Your task to perform on an android device: Do I have any events this weekend? Image 0: 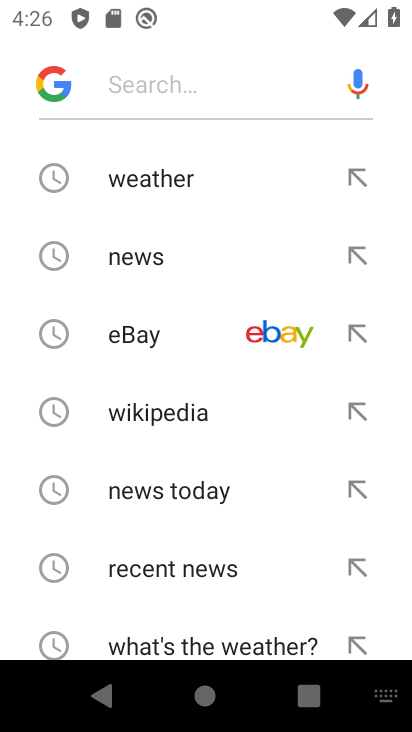
Step 0: press home button
Your task to perform on an android device: Do I have any events this weekend? Image 1: 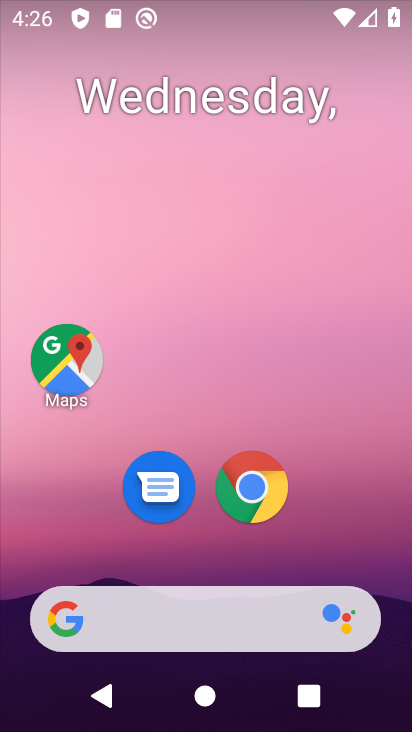
Step 1: drag from (356, 502) to (216, 116)
Your task to perform on an android device: Do I have any events this weekend? Image 2: 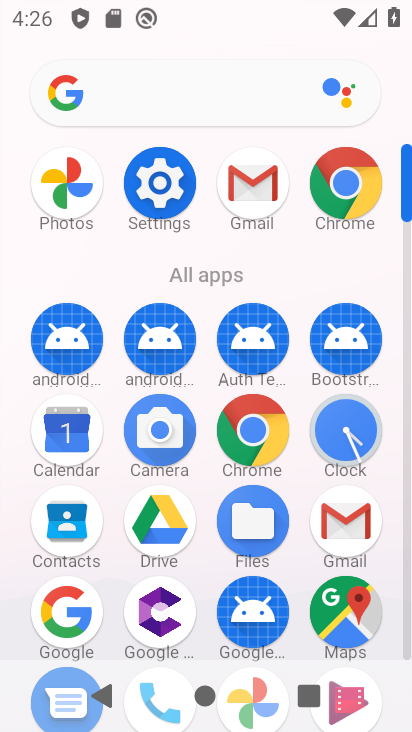
Step 2: click (82, 430)
Your task to perform on an android device: Do I have any events this weekend? Image 3: 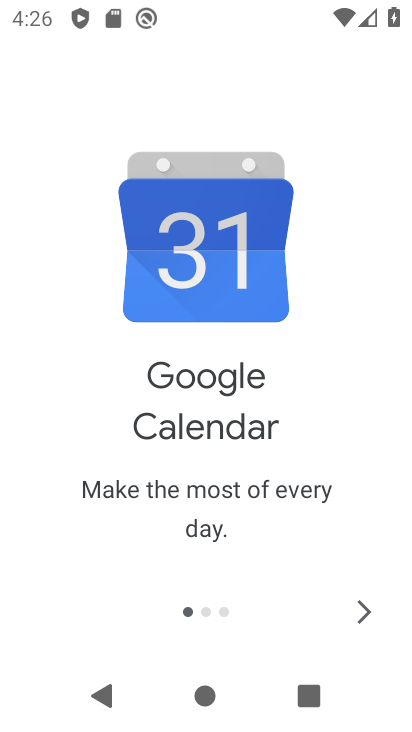
Step 3: click (382, 623)
Your task to perform on an android device: Do I have any events this weekend? Image 4: 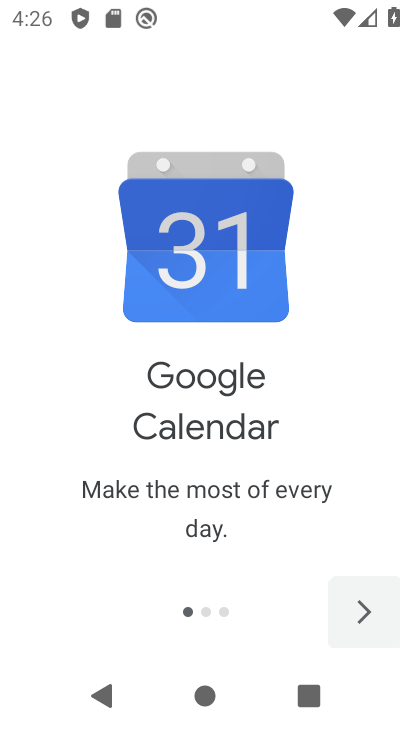
Step 4: click (377, 617)
Your task to perform on an android device: Do I have any events this weekend? Image 5: 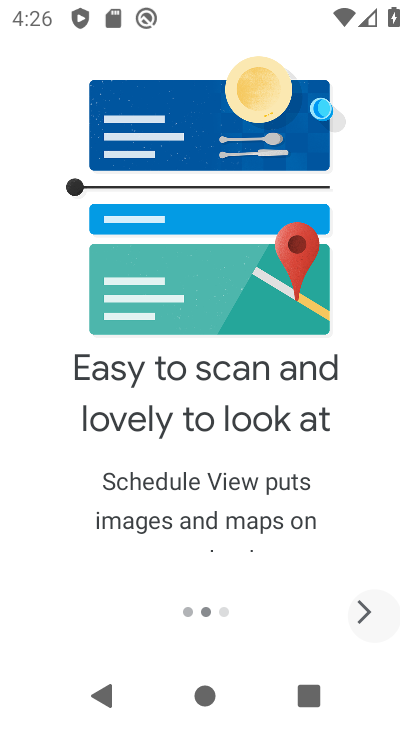
Step 5: click (377, 617)
Your task to perform on an android device: Do I have any events this weekend? Image 6: 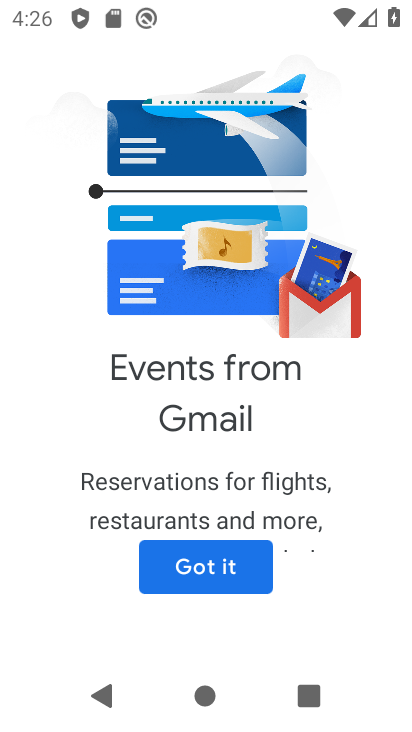
Step 6: click (377, 617)
Your task to perform on an android device: Do I have any events this weekend? Image 7: 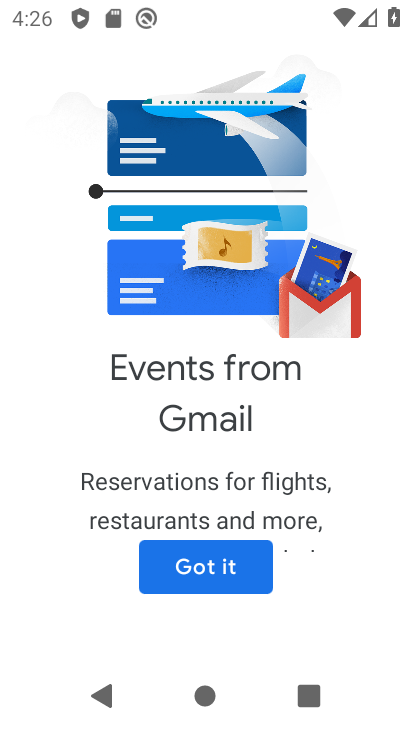
Step 7: click (219, 570)
Your task to perform on an android device: Do I have any events this weekend? Image 8: 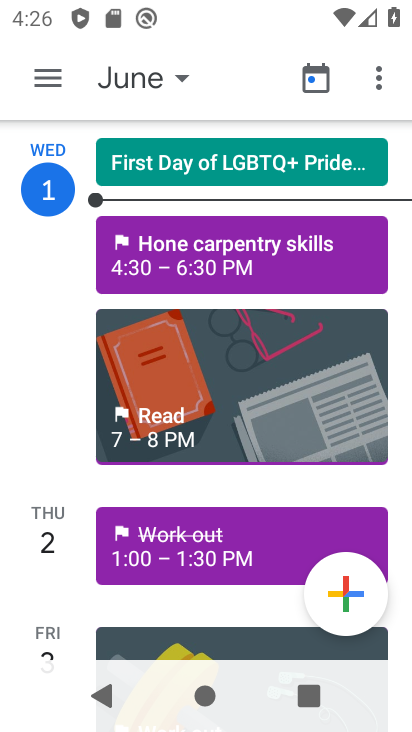
Step 8: click (51, 90)
Your task to perform on an android device: Do I have any events this weekend? Image 9: 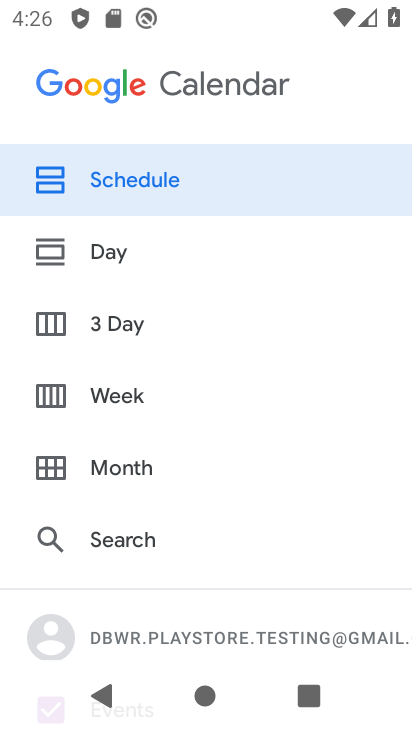
Step 9: click (106, 402)
Your task to perform on an android device: Do I have any events this weekend? Image 10: 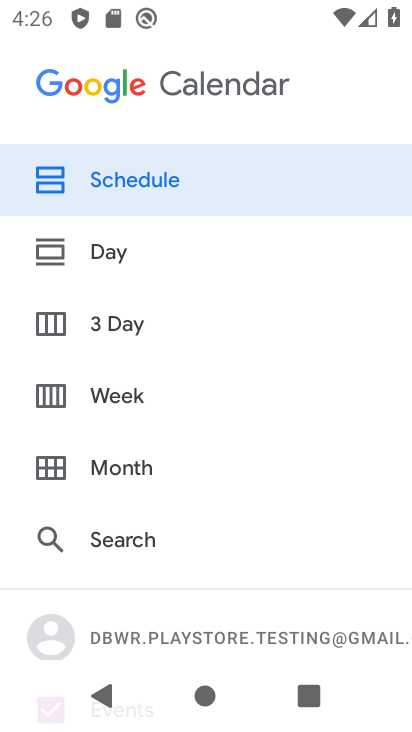
Step 10: click (107, 415)
Your task to perform on an android device: Do I have any events this weekend? Image 11: 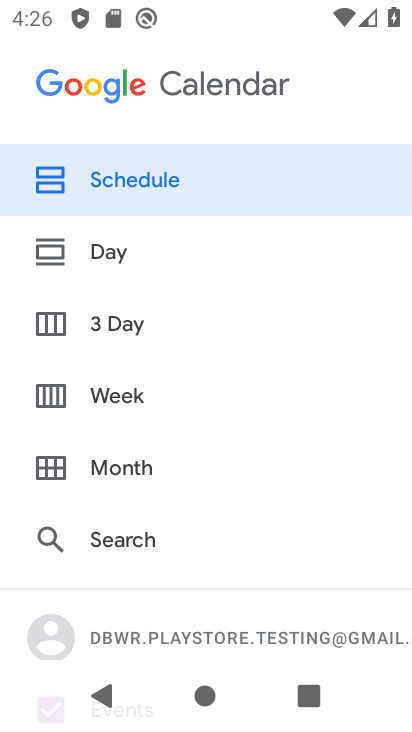
Step 11: click (107, 328)
Your task to perform on an android device: Do I have any events this weekend? Image 12: 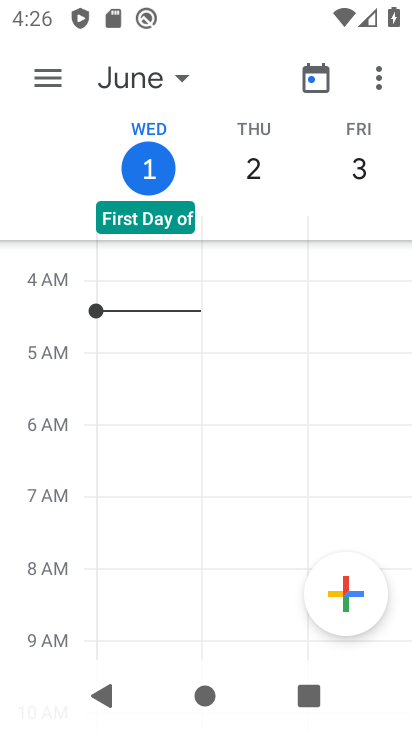
Step 12: task complete